Your task to perform on an android device: change text size in settings app Image 0: 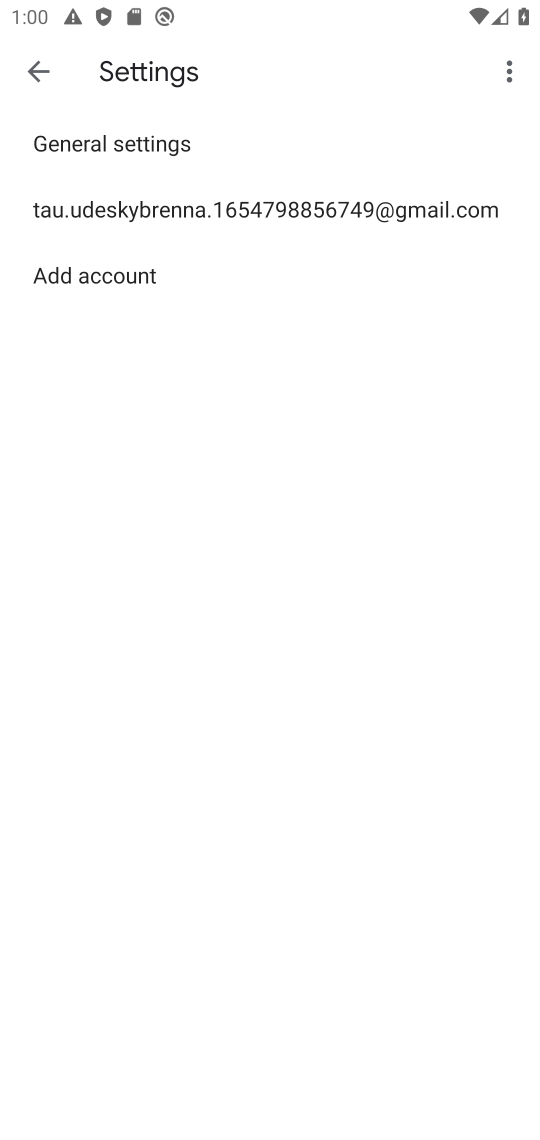
Step 0: press home button
Your task to perform on an android device: change text size in settings app Image 1: 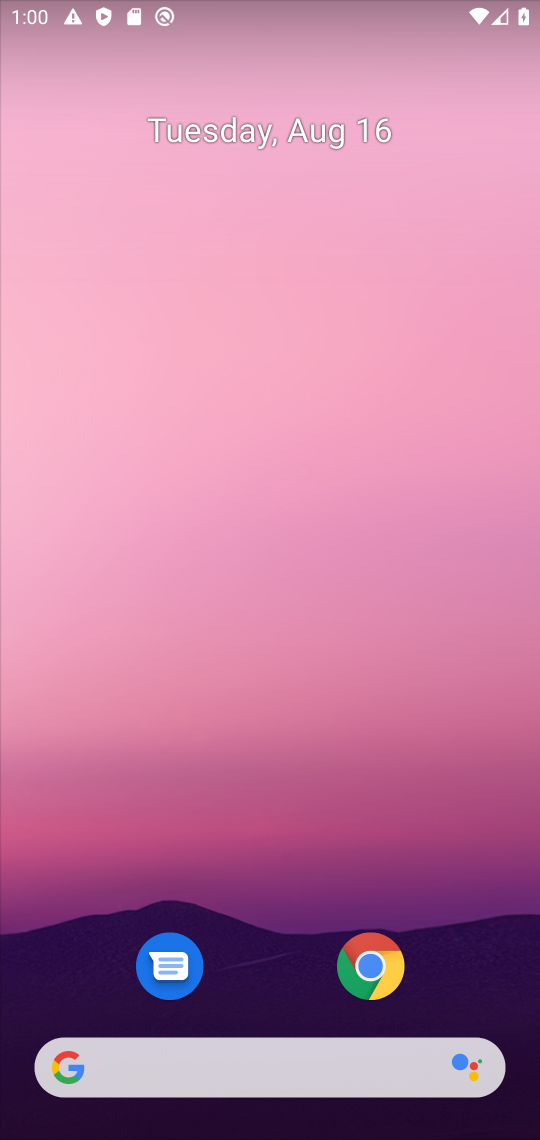
Step 1: drag from (277, 972) to (264, 149)
Your task to perform on an android device: change text size in settings app Image 2: 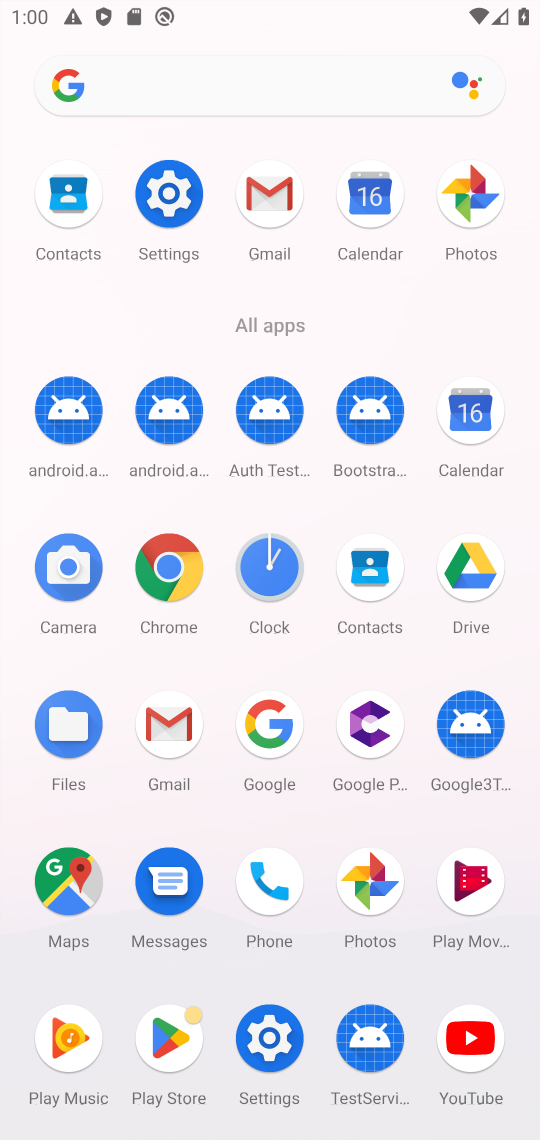
Step 2: click (171, 194)
Your task to perform on an android device: change text size in settings app Image 3: 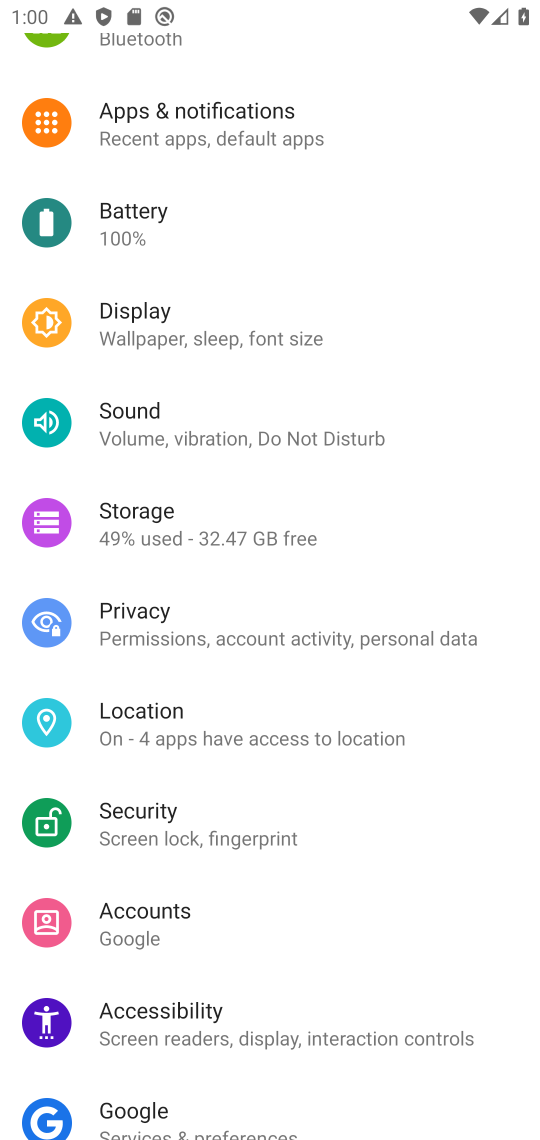
Step 3: click (139, 308)
Your task to perform on an android device: change text size in settings app Image 4: 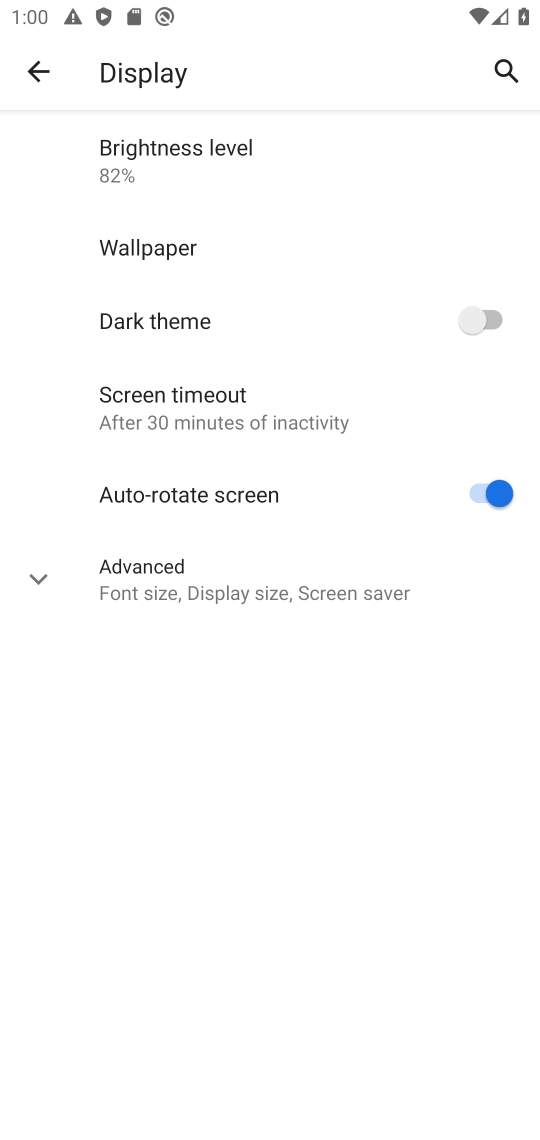
Step 4: click (148, 568)
Your task to perform on an android device: change text size in settings app Image 5: 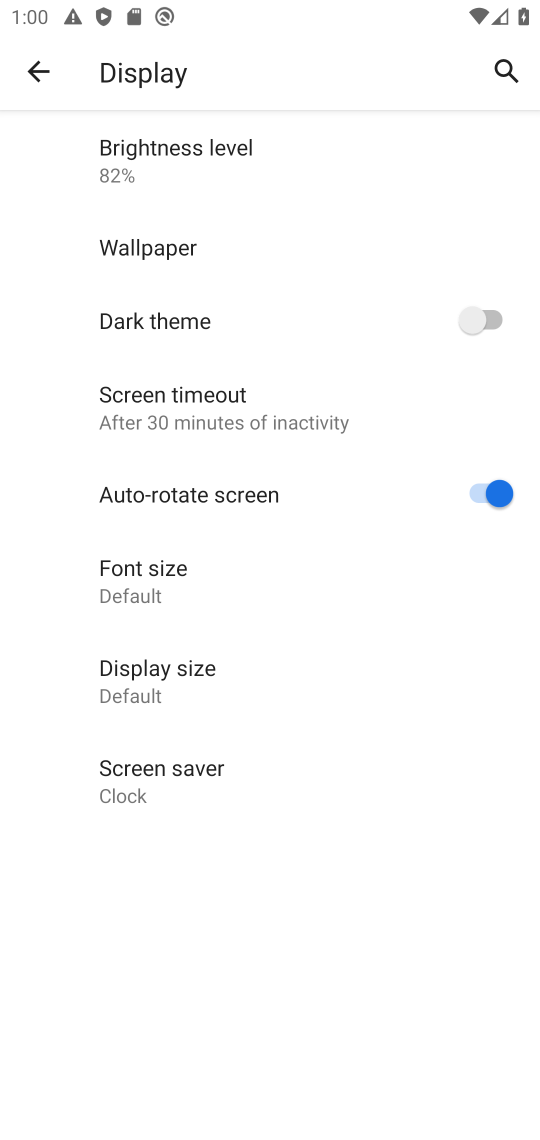
Step 5: click (127, 568)
Your task to perform on an android device: change text size in settings app Image 6: 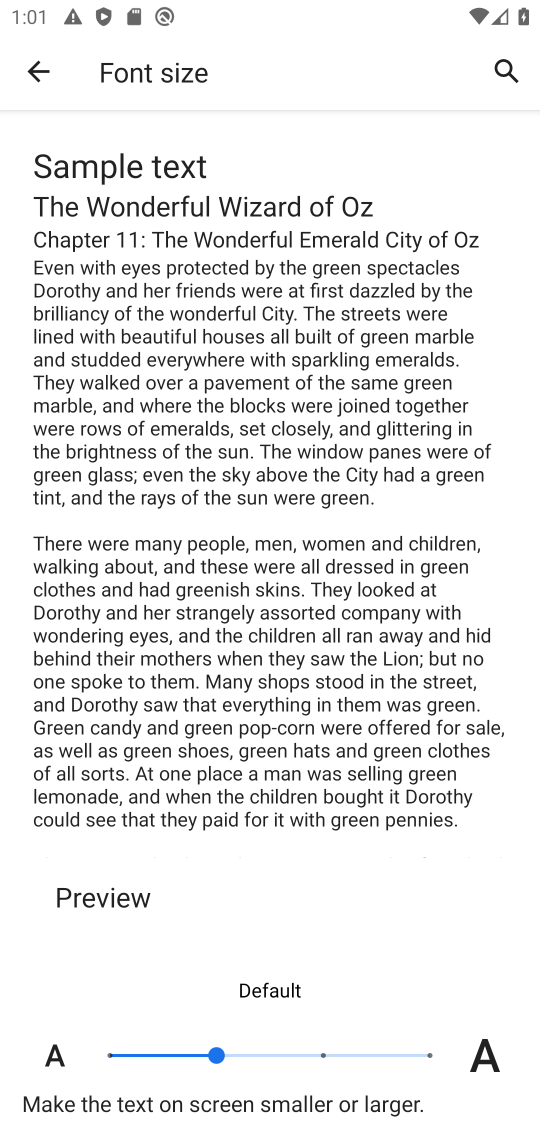
Step 6: click (309, 1040)
Your task to perform on an android device: change text size in settings app Image 7: 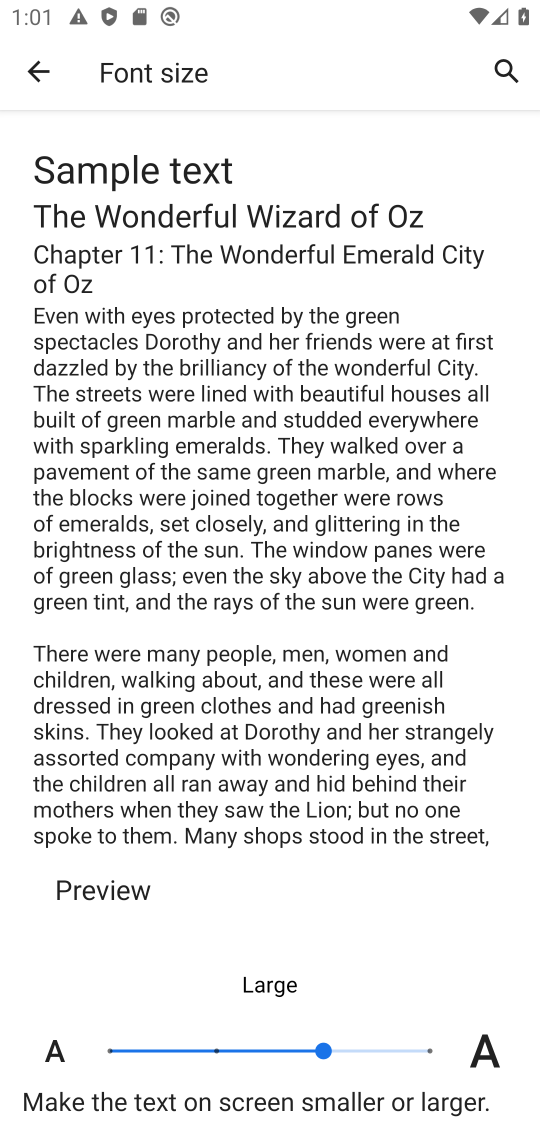
Step 7: task complete